Your task to perform on an android device: turn smart compose on in the gmail app Image 0: 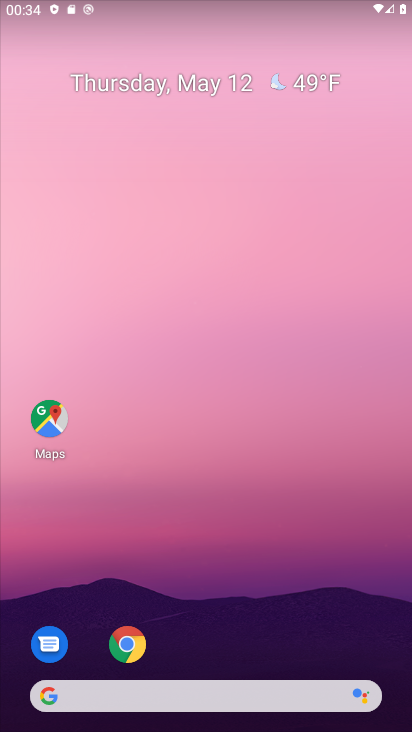
Step 0: drag from (238, 584) to (108, 28)
Your task to perform on an android device: turn smart compose on in the gmail app Image 1: 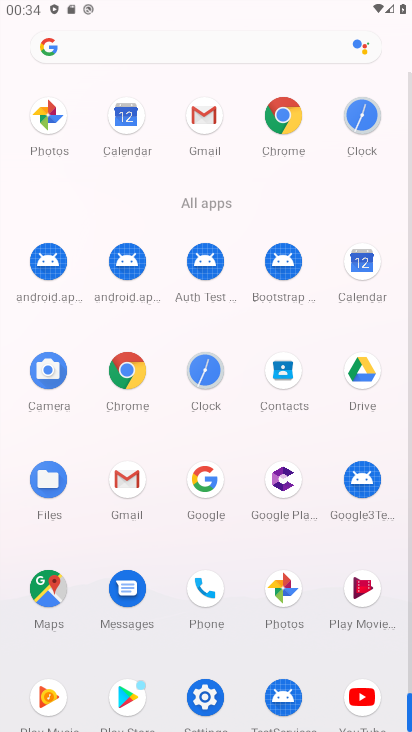
Step 1: click (126, 480)
Your task to perform on an android device: turn smart compose on in the gmail app Image 2: 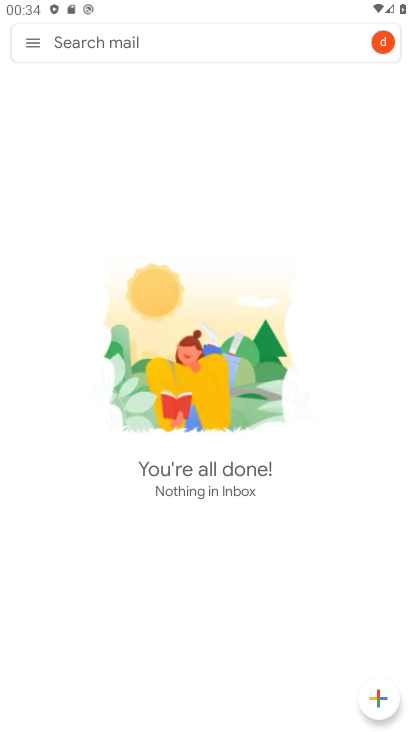
Step 2: click (126, 480)
Your task to perform on an android device: turn smart compose on in the gmail app Image 3: 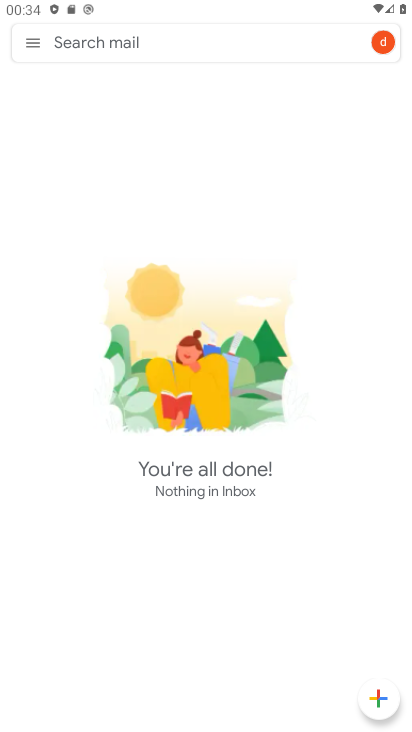
Step 3: click (23, 41)
Your task to perform on an android device: turn smart compose on in the gmail app Image 4: 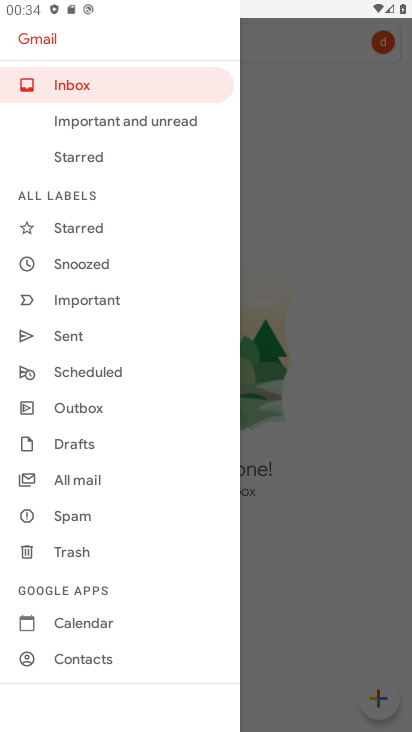
Step 4: drag from (135, 584) to (114, 420)
Your task to perform on an android device: turn smart compose on in the gmail app Image 5: 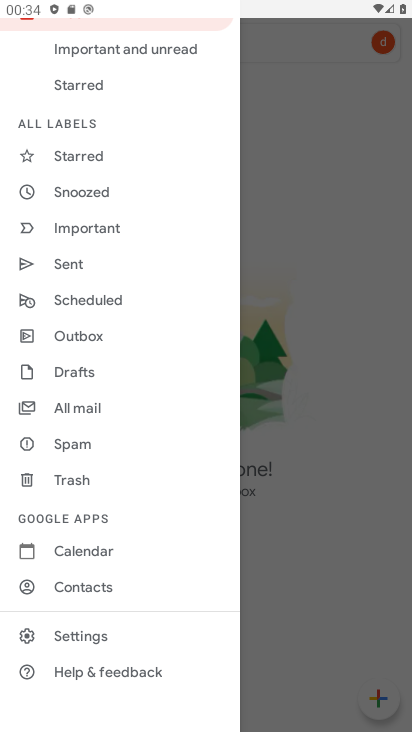
Step 5: click (87, 628)
Your task to perform on an android device: turn smart compose on in the gmail app Image 6: 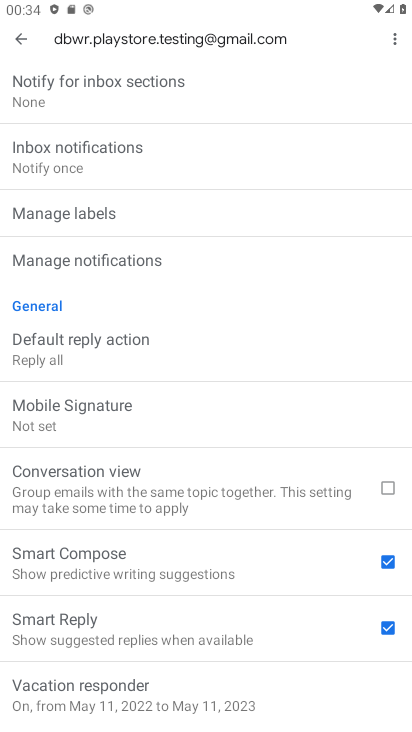
Step 6: task complete